Your task to perform on an android device: Search for pizza restaurants on Maps Image 0: 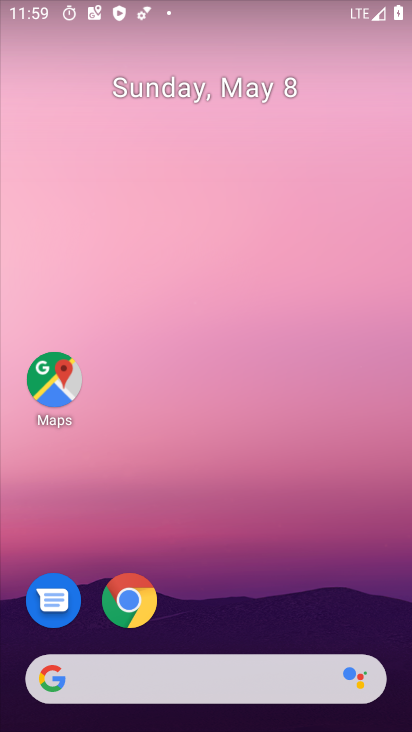
Step 0: drag from (253, 563) to (181, 108)
Your task to perform on an android device: Search for pizza restaurants on Maps Image 1: 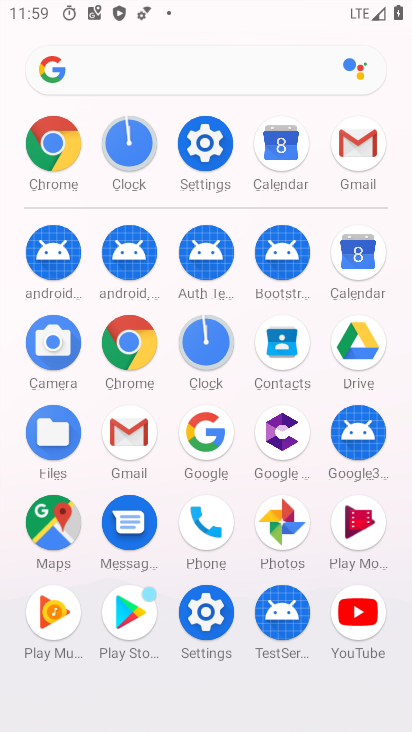
Step 1: click (71, 529)
Your task to perform on an android device: Search for pizza restaurants on Maps Image 2: 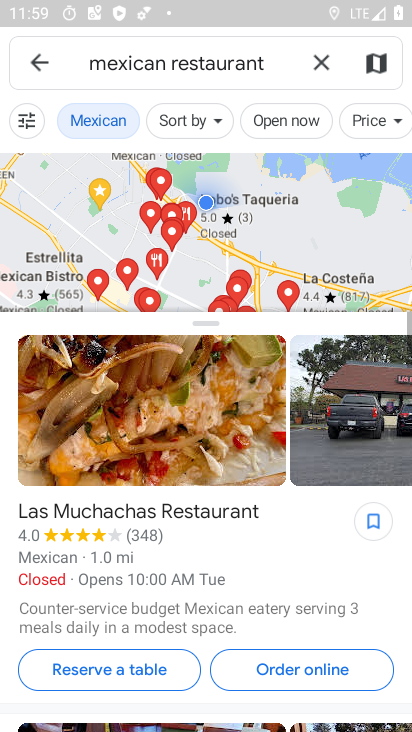
Step 2: click (322, 77)
Your task to perform on an android device: Search for pizza restaurants on Maps Image 3: 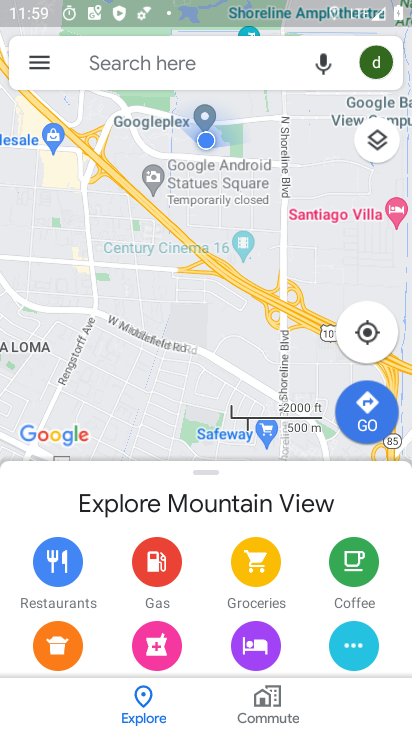
Step 3: click (178, 63)
Your task to perform on an android device: Search for pizza restaurants on Maps Image 4: 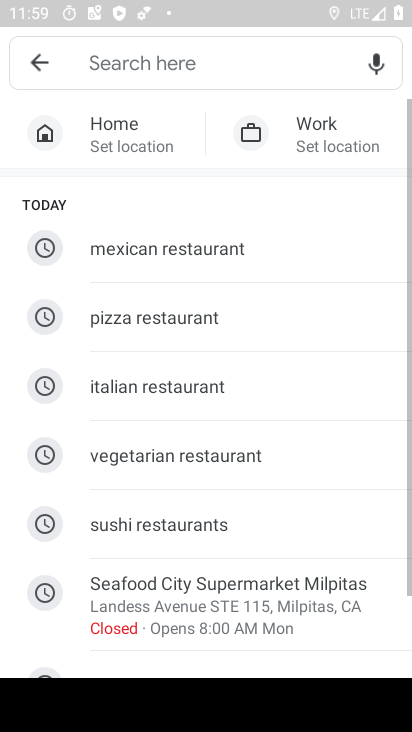
Step 4: click (162, 310)
Your task to perform on an android device: Search for pizza restaurants on Maps Image 5: 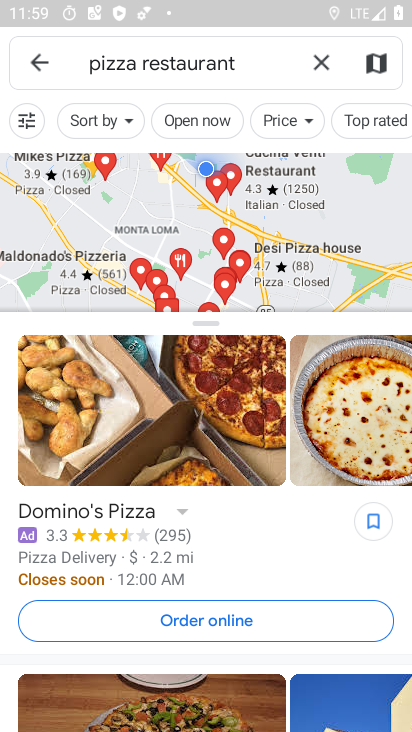
Step 5: task complete